Your task to perform on an android device: toggle pop-ups in chrome Image 0: 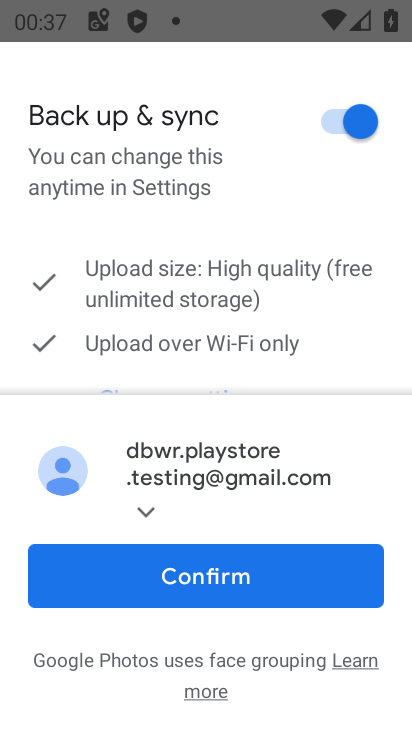
Step 0: press home button
Your task to perform on an android device: toggle pop-ups in chrome Image 1: 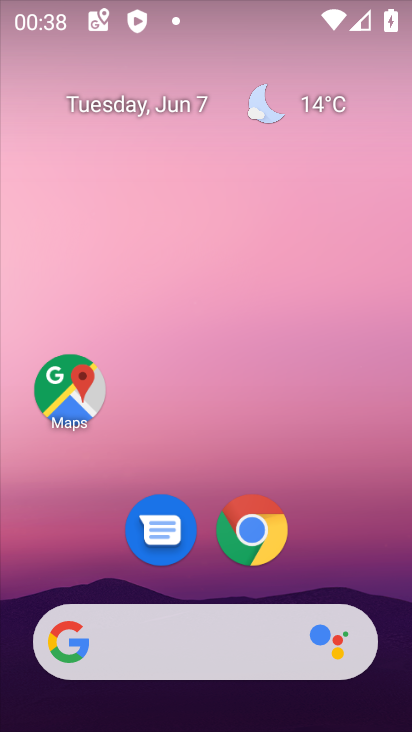
Step 1: click (264, 537)
Your task to perform on an android device: toggle pop-ups in chrome Image 2: 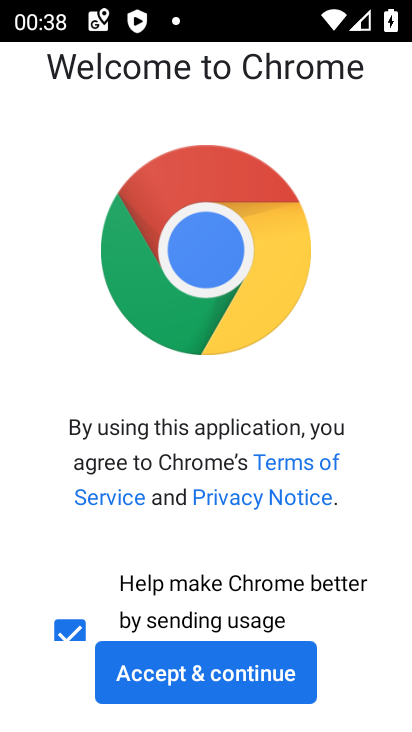
Step 2: click (237, 661)
Your task to perform on an android device: toggle pop-ups in chrome Image 3: 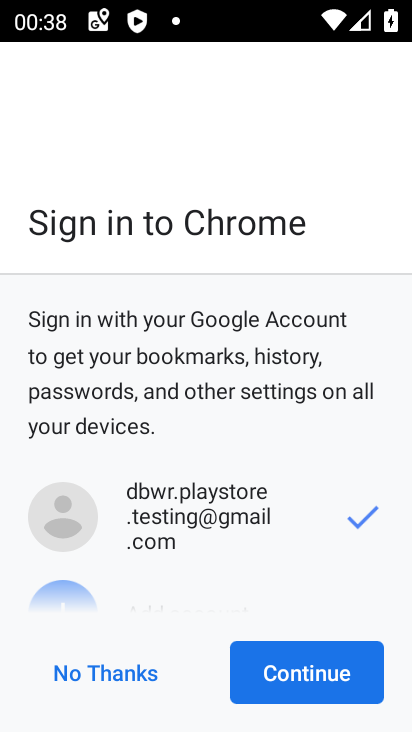
Step 3: click (289, 674)
Your task to perform on an android device: toggle pop-ups in chrome Image 4: 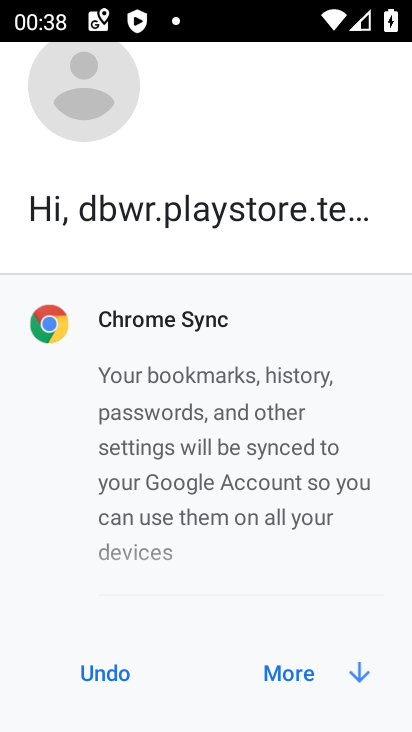
Step 4: click (307, 660)
Your task to perform on an android device: toggle pop-ups in chrome Image 5: 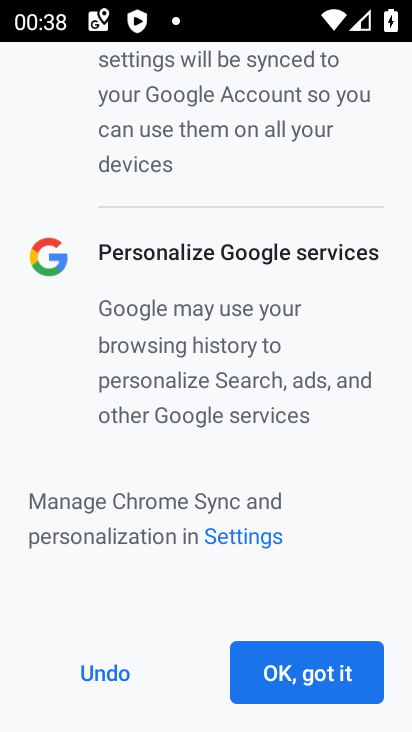
Step 5: click (309, 669)
Your task to perform on an android device: toggle pop-ups in chrome Image 6: 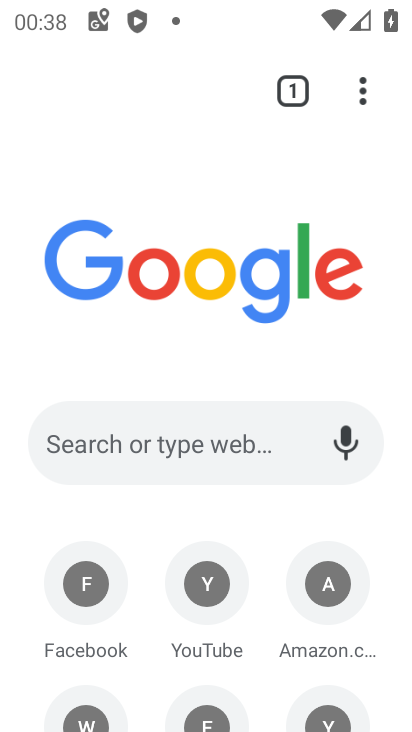
Step 6: click (373, 90)
Your task to perform on an android device: toggle pop-ups in chrome Image 7: 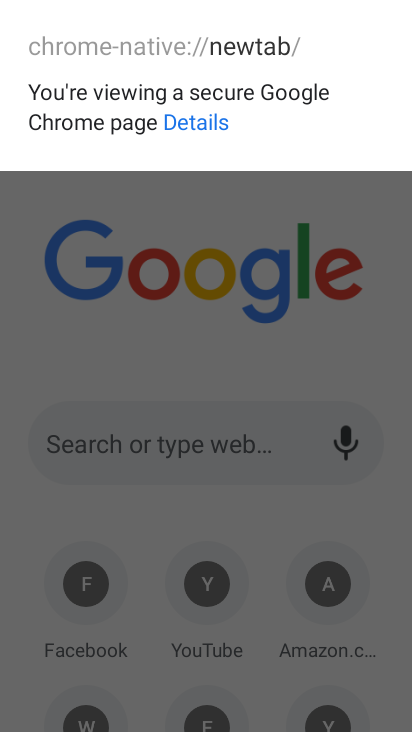
Step 7: click (361, 91)
Your task to perform on an android device: toggle pop-ups in chrome Image 8: 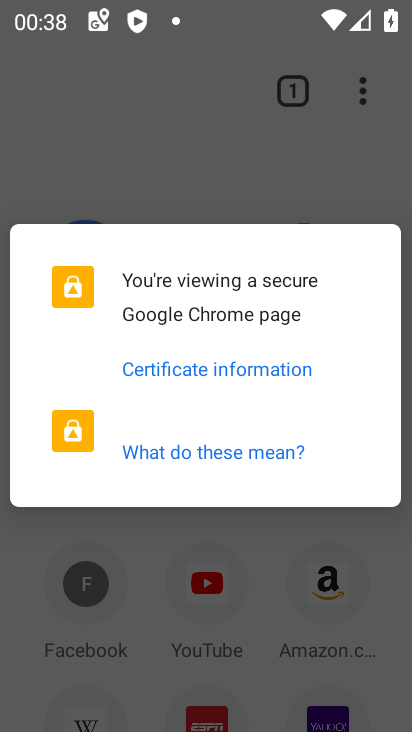
Step 8: click (368, 76)
Your task to perform on an android device: toggle pop-ups in chrome Image 9: 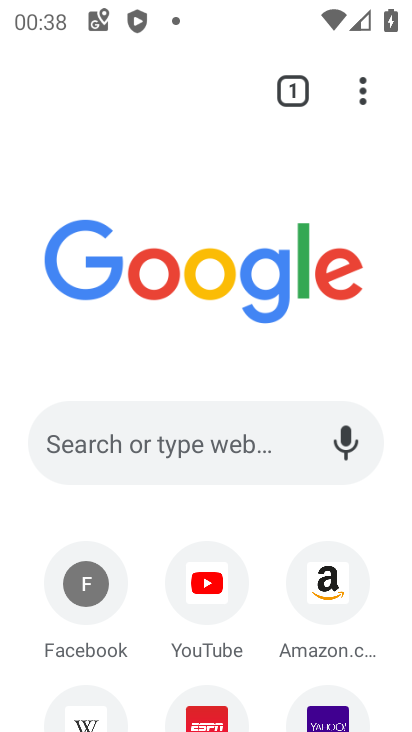
Step 9: click (352, 95)
Your task to perform on an android device: toggle pop-ups in chrome Image 10: 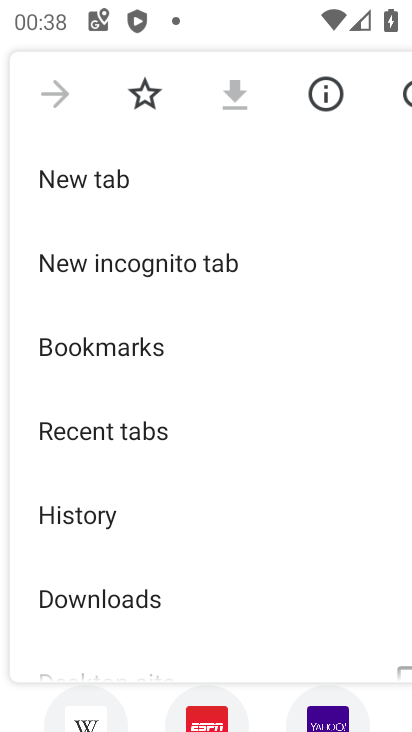
Step 10: drag from (186, 579) to (233, 203)
Your task to perform on an android device: toggle pop-ups in chrome Image 11: 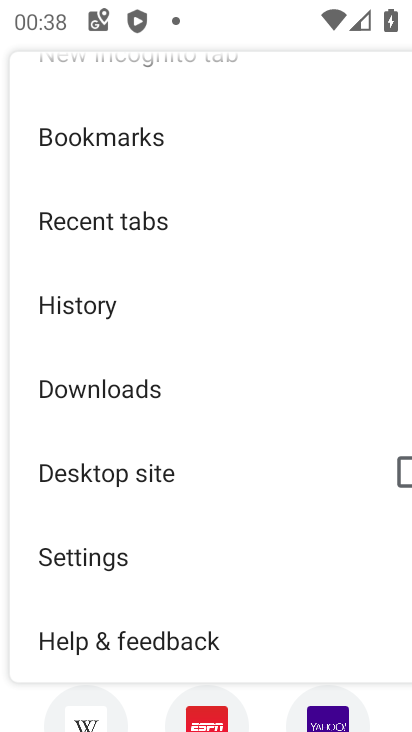
Step 11: click (135, 562)
Your task to perform on an android device: toggle pop-ups in chrome Image 12: 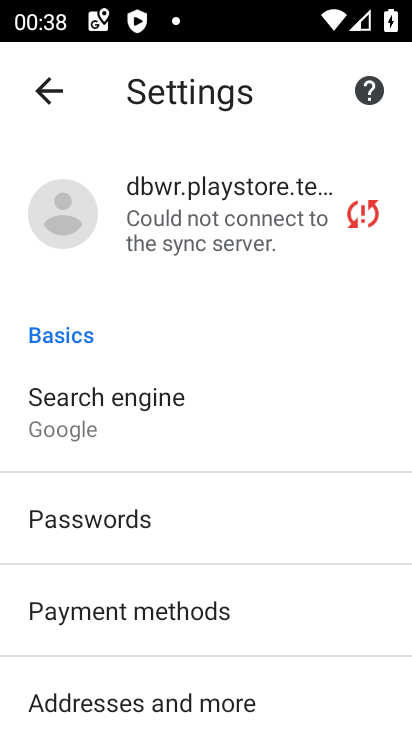
Step 12: drag from (178, 626) to (212, 282)
Your task to perform on an android device: toggle pop-ups in chrome Image 13: 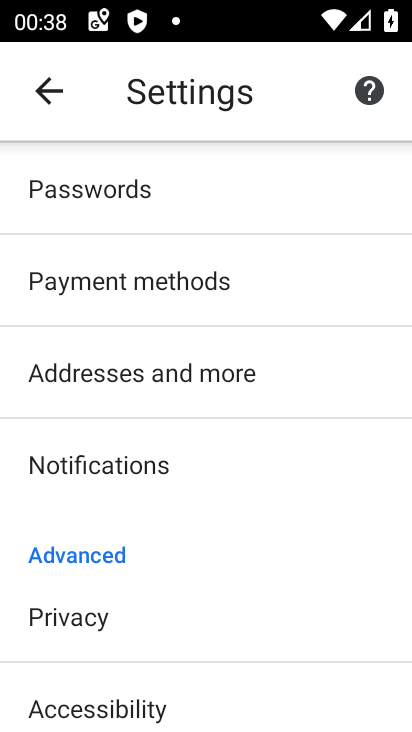
Step 13: drag from (155, 550) to (173, 347)
Your task to perform on an android device: toggle pop-ups in chrome Image 14: 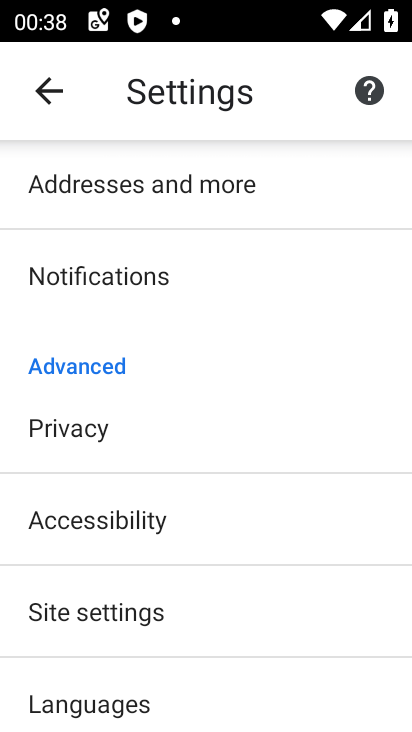
Step 14: click (123, 612)
Your task to perform on an android device: toggle pop-ups in chrome Image 15: 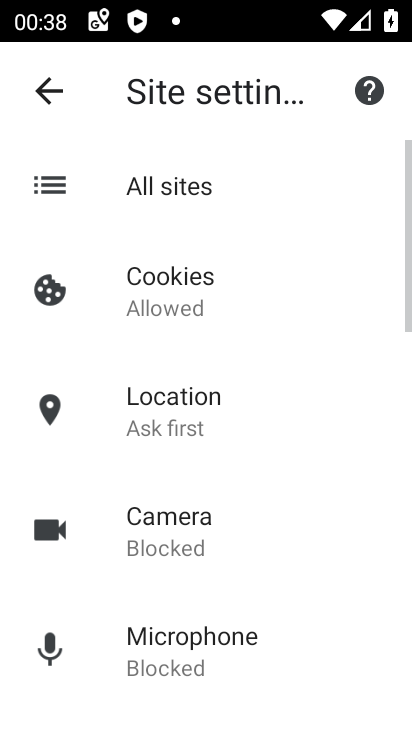
Step 15: drag from (225, 581) to (243, 244)
Your task to perform on an android device: toggle pop-ups in chrome Image 16: 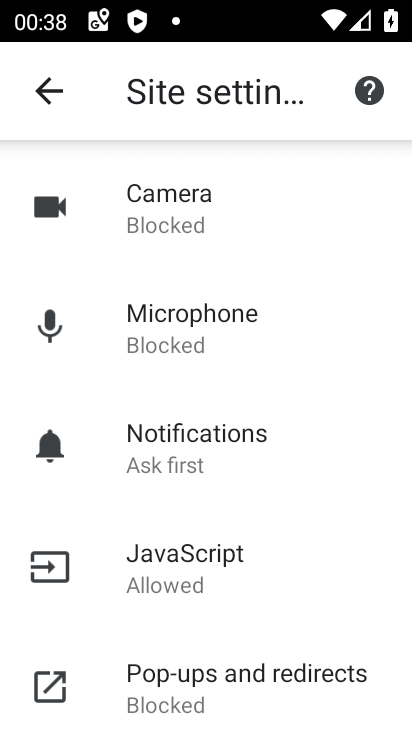
Step 16: drag from (198, 668) to (237, 273)
Your task to perform on an android device: toggle pop-ups in chrome Image 17: 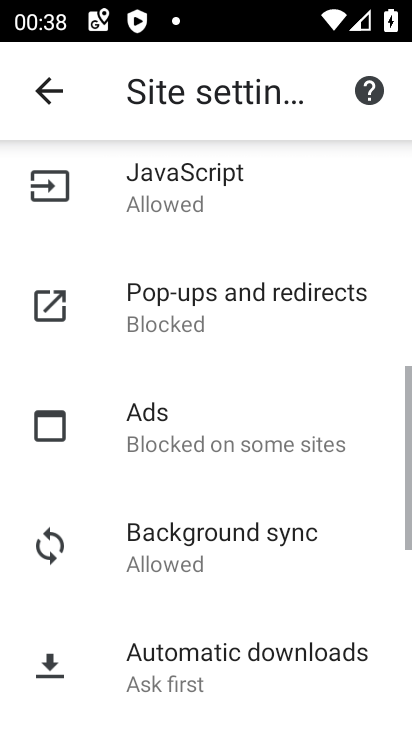
Step 17: drag from (241, 621) to (259, 268)
Your task to perform on an android device: toggle pop-ups in chrome Image 18: 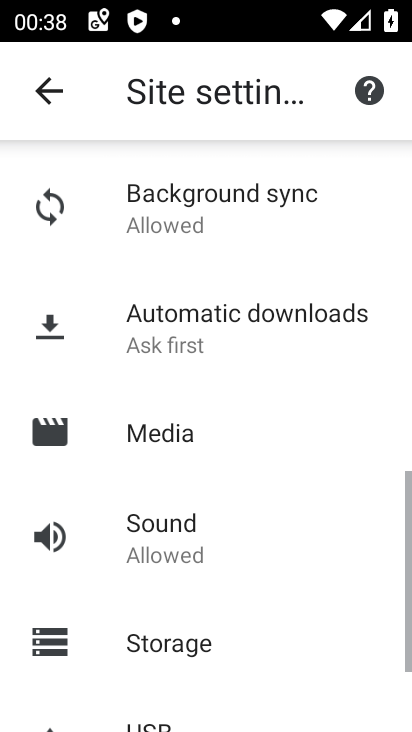
Step 18: drag from (295, 586) to (300, 210)
Your task to perform on an android device: toggle pop-ups in chrome Image 19: 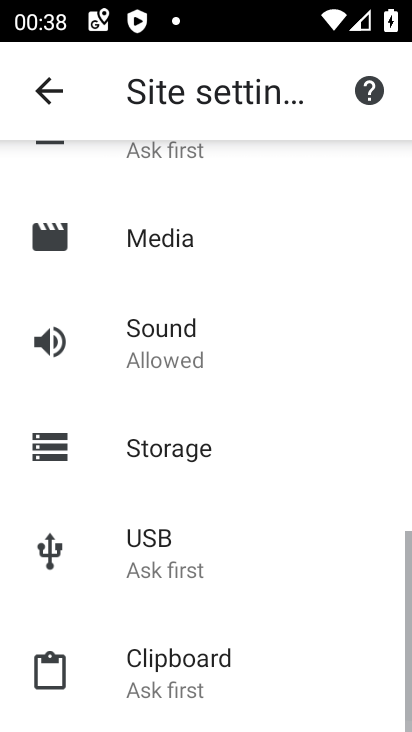
Step 19: drag from (279, 451) to (307, 191)
Your task to perform on an android device: toggle pop-ups in chrome Image 20: 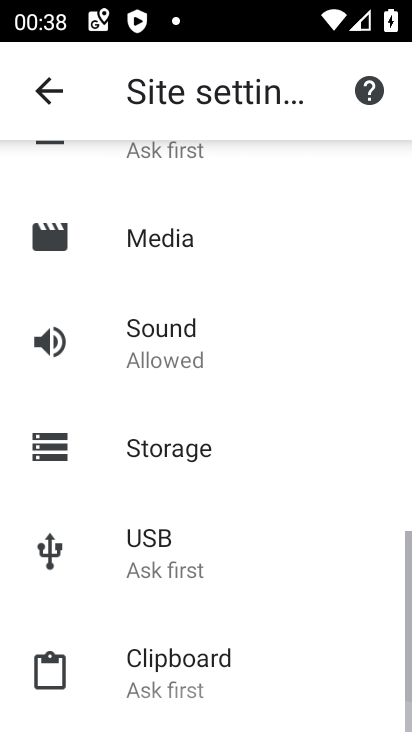
Step 20: drag from (211, 522) to (247, 304)
Your task to perform on an android device: toggle pop-ups in chrome Image 21: 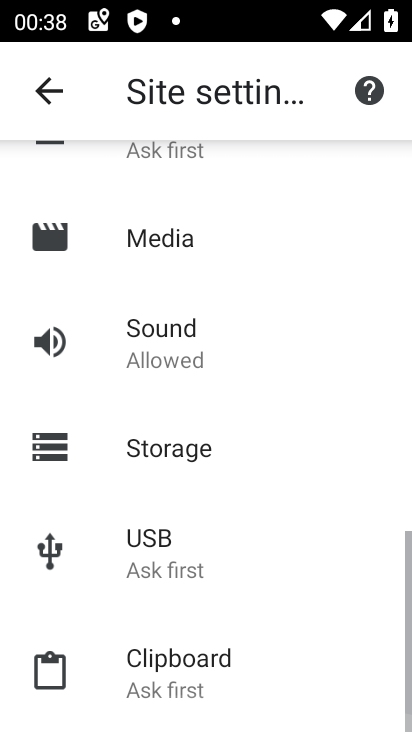
Step 21: drag from (192, 539) to (230, 288)
Your task to perform on an android device: toggle pop-ups in chrome Image 22: 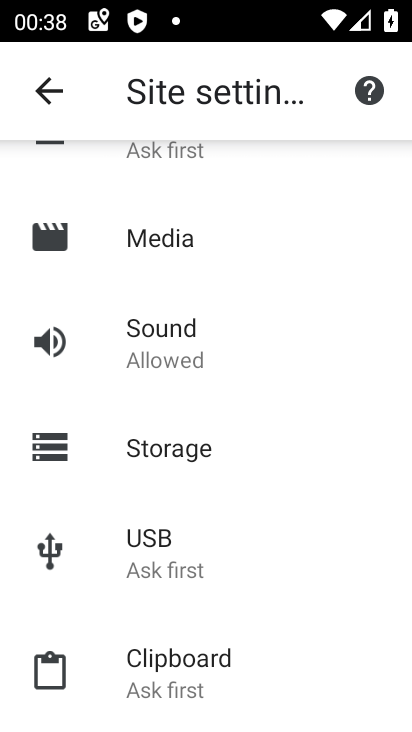
Step 22: drag from (251, 200) to (242, 600)
Your task to perform on an android device: toggle pop-ups in chrome Image 23: 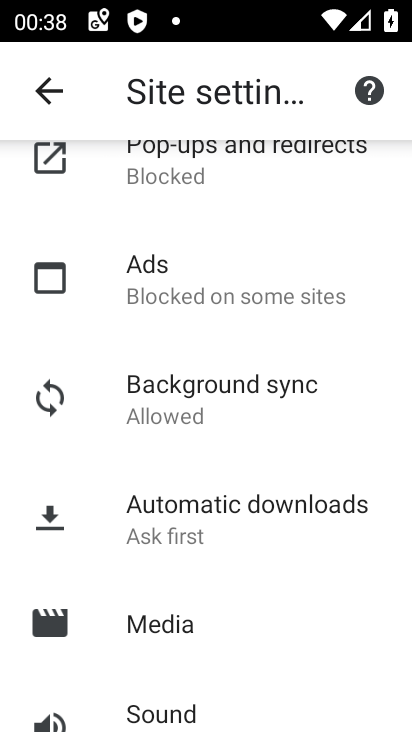
Step 23: drag from (178, 185) to (178, 442)
Your task to perform on an android device: toggle pop-ups in chrome Image 24: 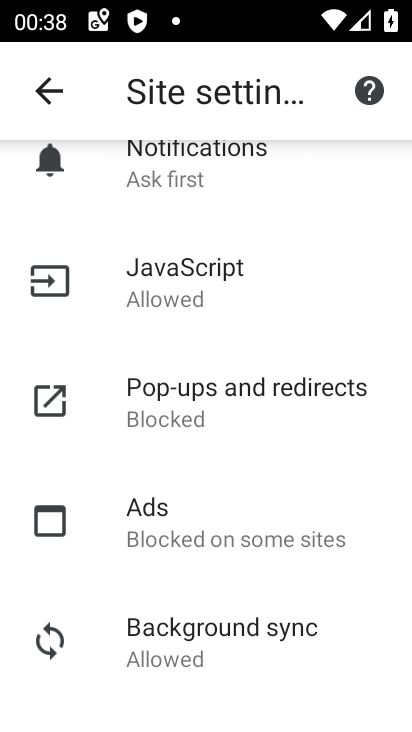
Step 24: click (178, 393)
Your task to perform on an android device: toggle pop-ups in chrome Image 25: 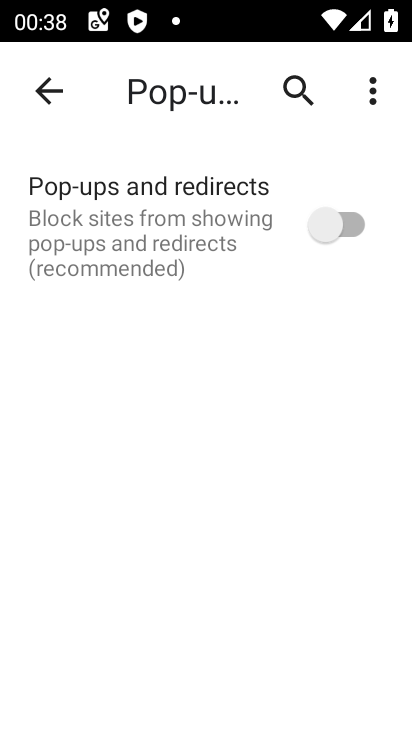
Step 25: click (328, 206)
Your task to perform on an android device: toggle pop-ups in chrome Image 26: 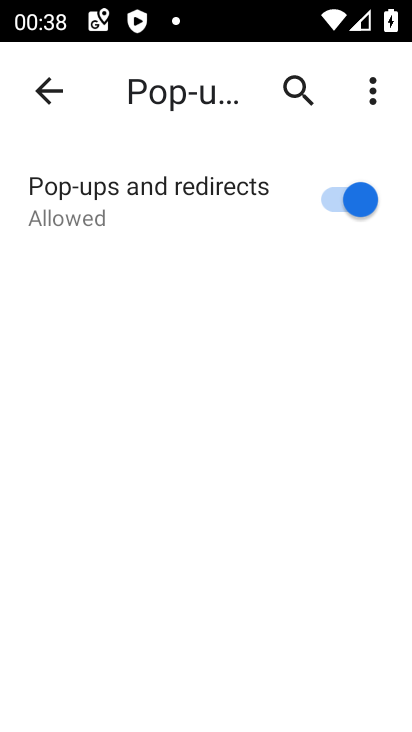
Step 26: task complete